Your task to perform on an android device: toggle airplane mode Image 0: 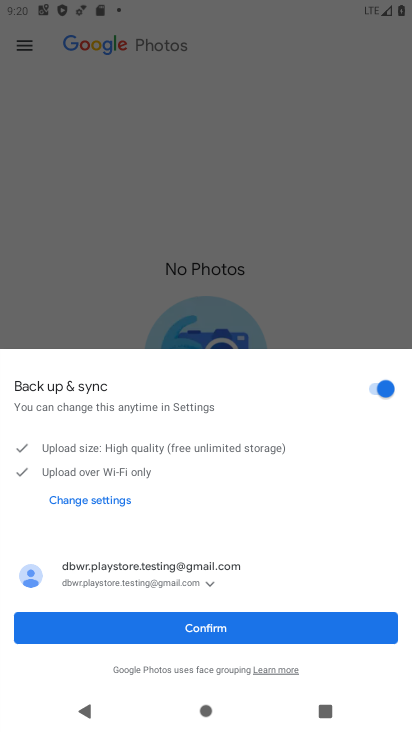
Step 0: press home button
Your task to perform on an android device: toggle airplane mode Image 1: 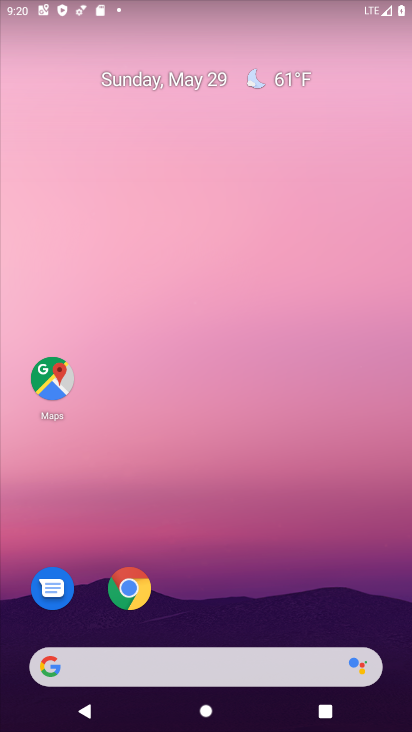
Step 1: drag from (336, 607) to (281, 213)
Your task to perform on an android device: toggle airplane mode Image 2: 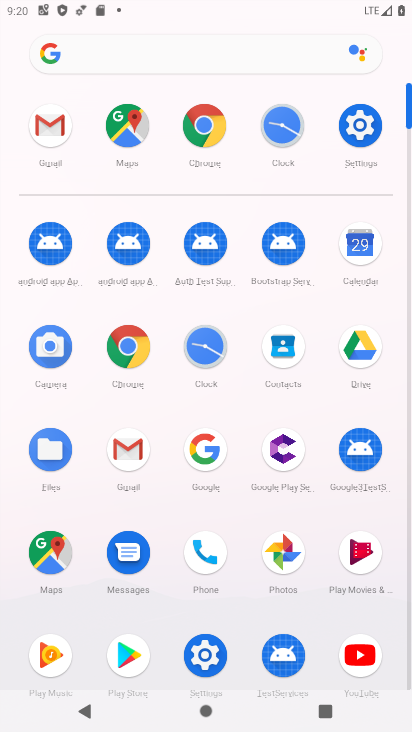
Step 2: click (364, 113)
Your task to perform on an android device: toggle airplane mode Image 3: 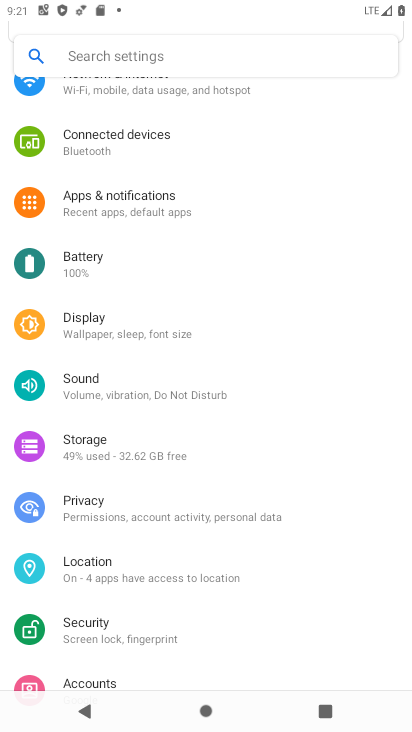
Step 3: drag from (132, 208) to (190, 644)
Your task to perform on an android device: toggle airplane mode Image 4: 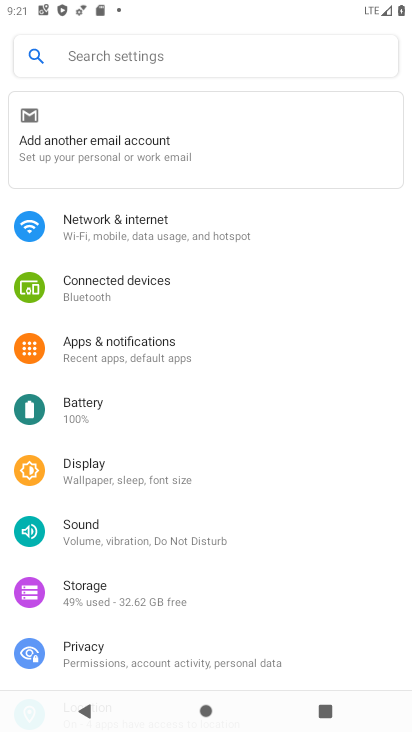
Step 4: click (169, 229)
Your task to perform on an android device: toggle airplane mode Image 5: 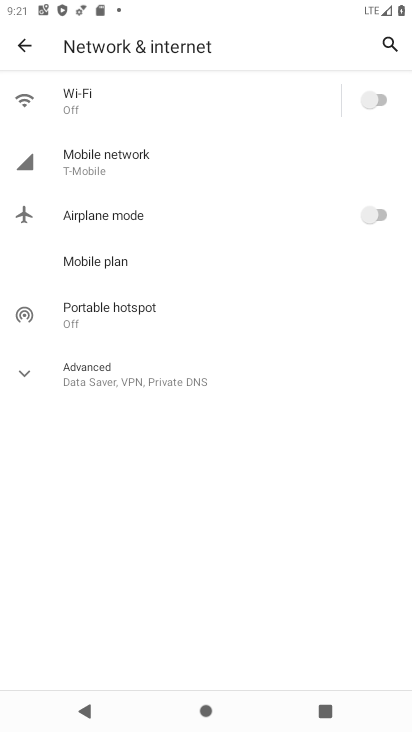
Step 5: click (373, 222)
Your task to perform on an android device: toggle airplane mode Image 6: 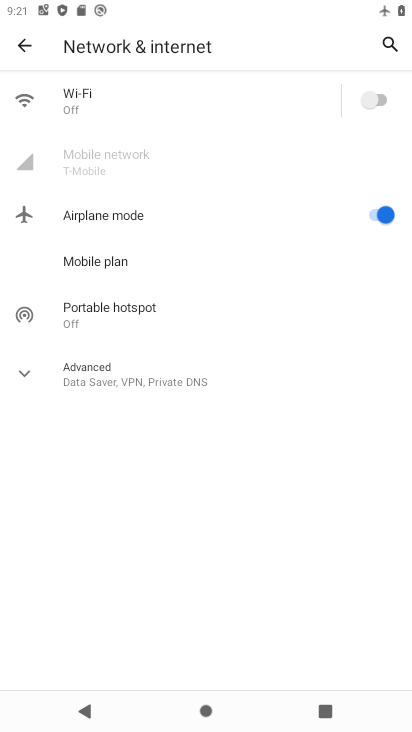
Step 6: task complete